Your task to perform on an android device: set the timer Image 0: 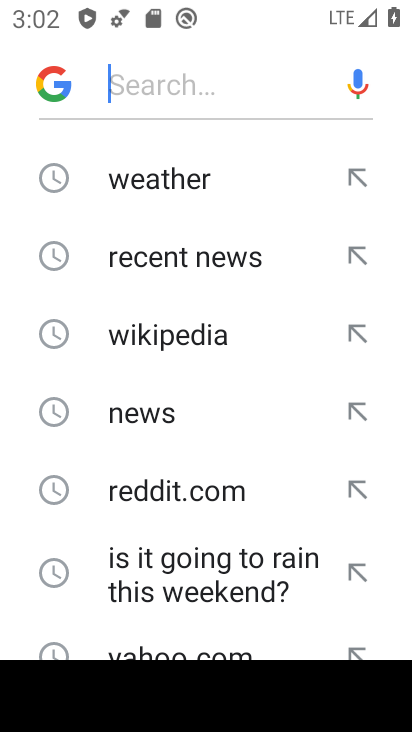
Step 0: press home button
Your task to perform on an android device: set the timer Image 1: 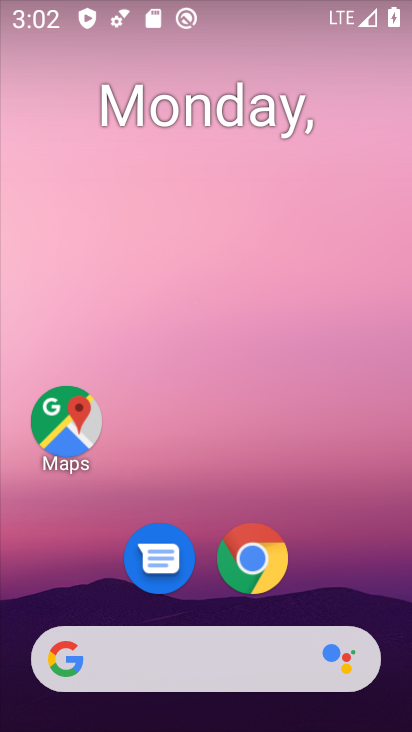
Step 1: drag from (356, 581) to (260, 8)
Your task to perform on an android device: set the timer Image 2: 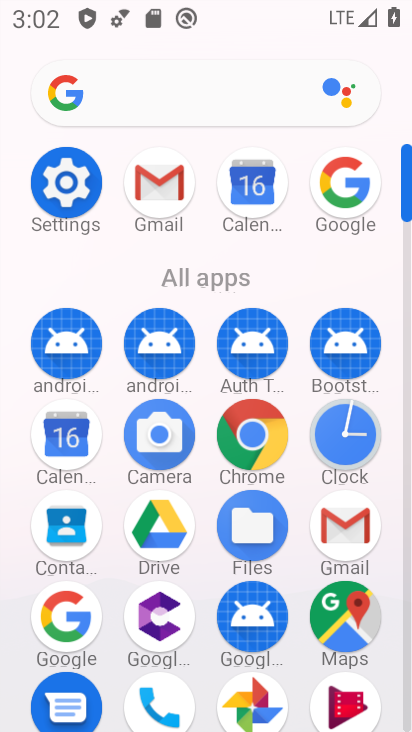
Step 2: click (341, 437)
Your task to perform on an android device: set the timer Image 3: 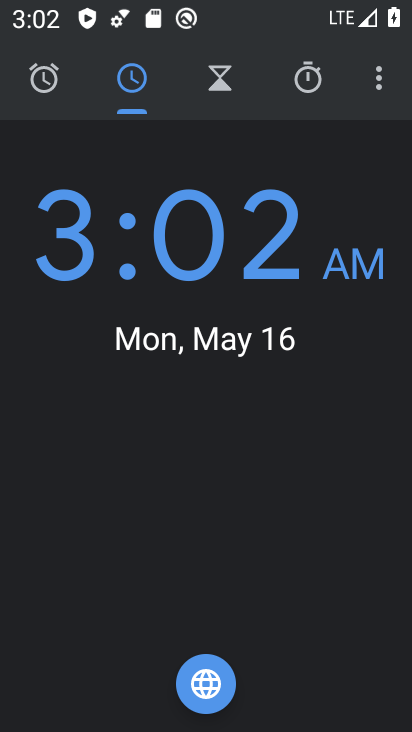
Step 3: click (218, 89)
Your task to perform on an android device: set the timer Image 4: 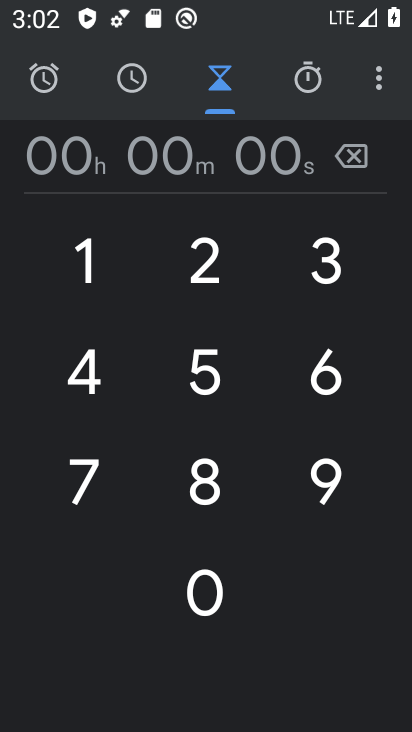
Step 4: click (199, 387)
Your task to perform on an android device: set the timer Image 5: 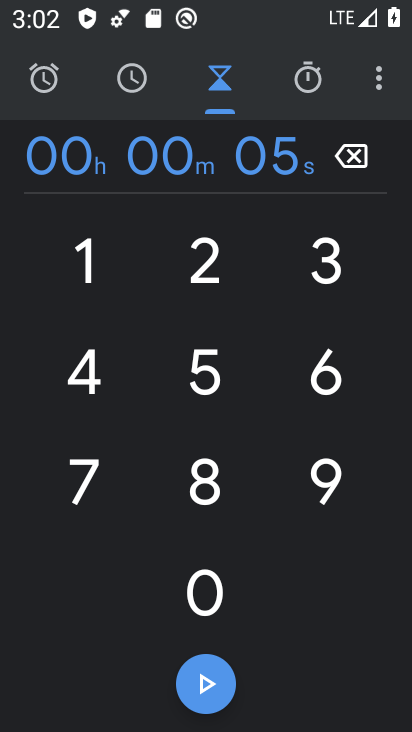
Step 5: click (207, 606)
Your task to perform on an android device: set the timer Image 6: 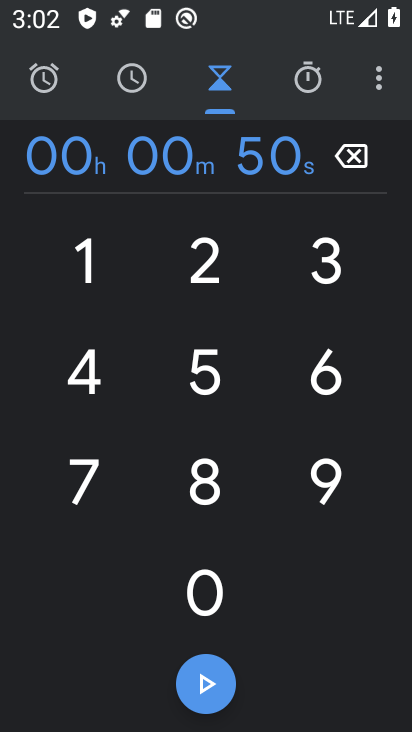
Step 6: click (190, 683)
Your task to perform on an android device: set the timer Image 7: 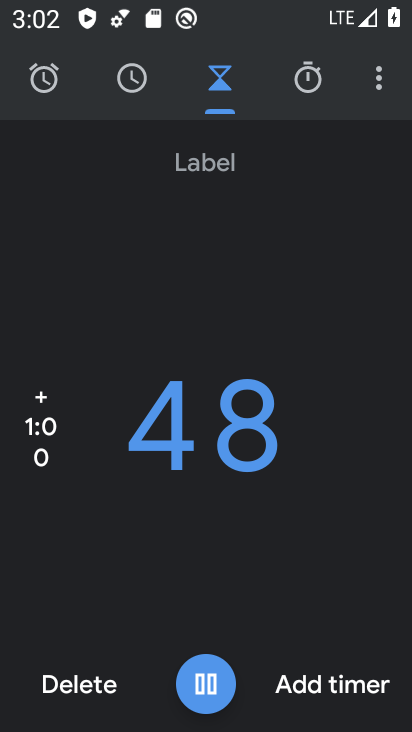
Step 7: task complete